Your task to perform on an android device: Open the Play Movies app and select the watchlist tab. Image 0: 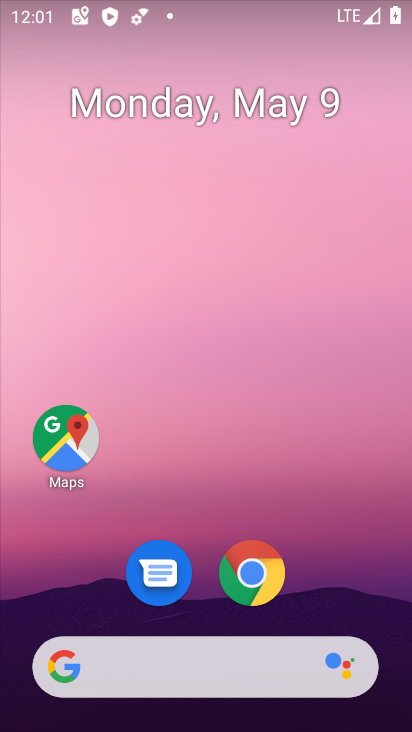
Step 0: drag from (334, 554) to (229, 60)
Your task to perform on an android device: Open the Play Movies app and select the watchlist tab. Image 1: 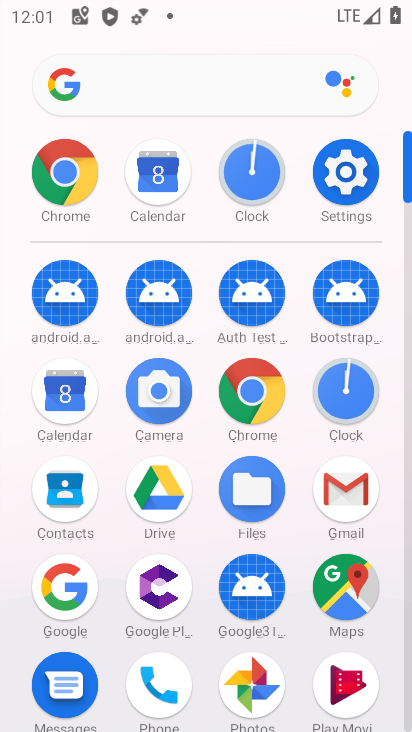
Step 1: click (343, 679)
Your task to perform on an android device: Open the Play Movies app and select the watchlist tab. Image 2: 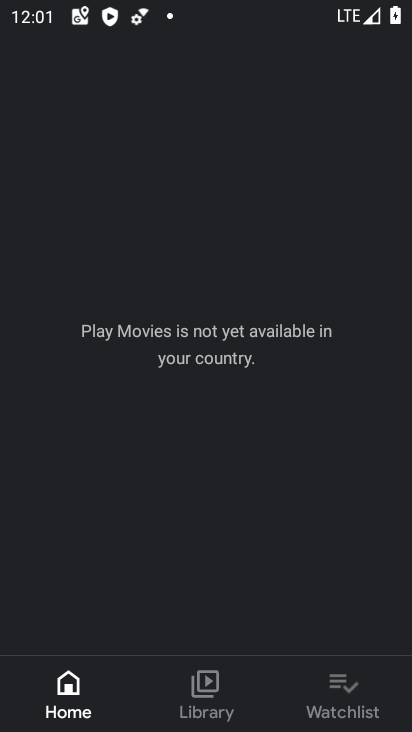
Step 2: click (341, 707)
Your task to perform on an android device: Open the Play Movies app and select the watchlist tab. Image 3: 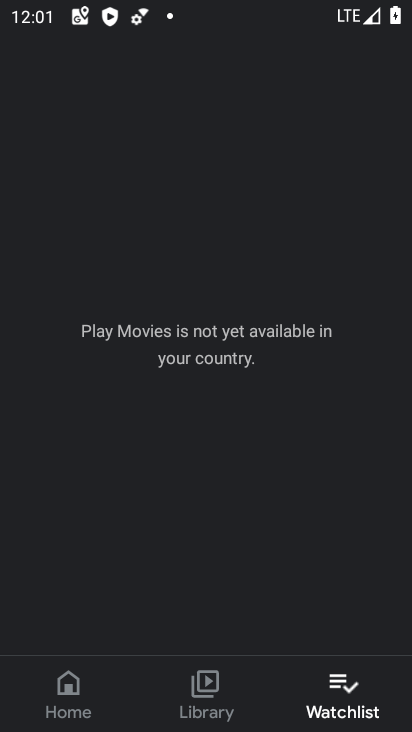
Step 3: task complete